Your task to perform on an android device: turn on airplane mode Image 0: 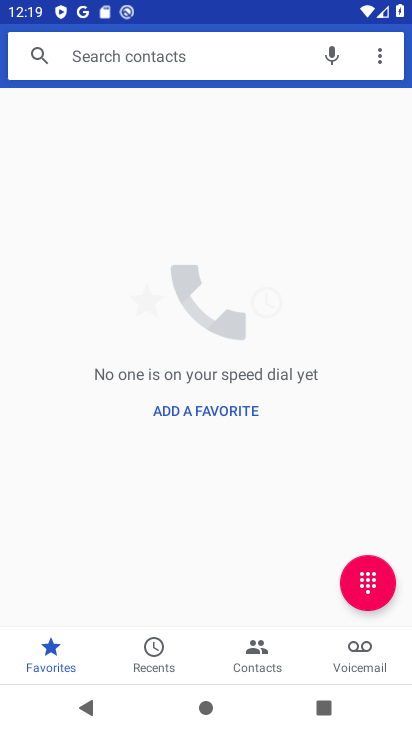
Step 0: press home button
Your task to perform on an android device: turn on airplane mode Image 1: 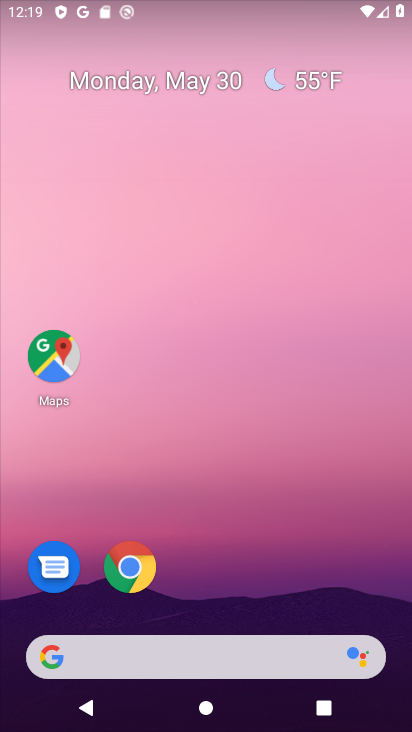
Step 1: drag from (248, 9) to (248, 576)
Your task to perform on an android device: turn on airplane mode Image 2: 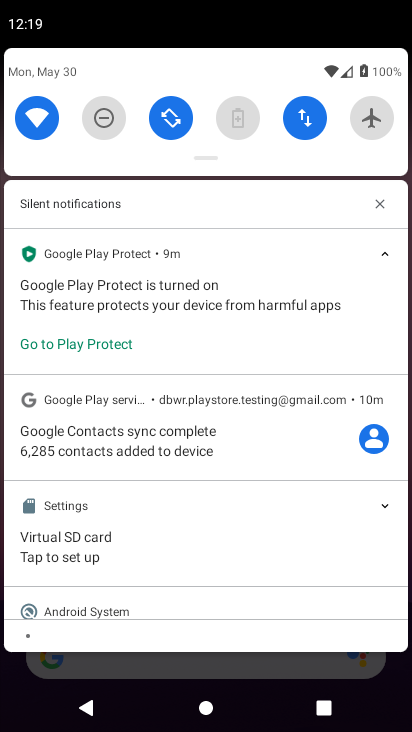
Step 2: click (370, 114)
Your task to perform on an android device: turn on airplane mode Image 3: 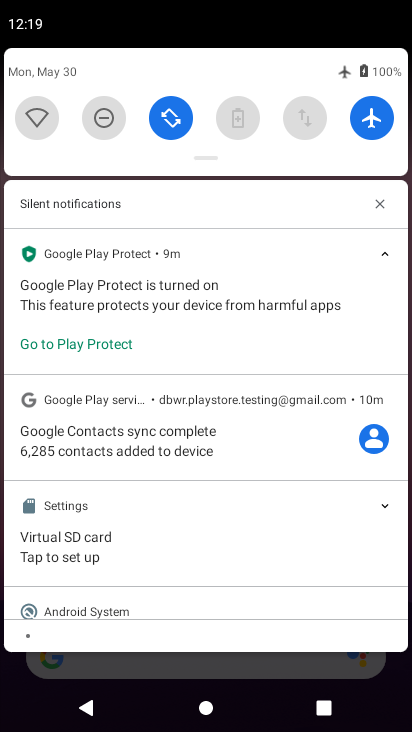
Step 3: task complete